Your task to perform on an android device: turn on the 24-hour format for clock Image 0: 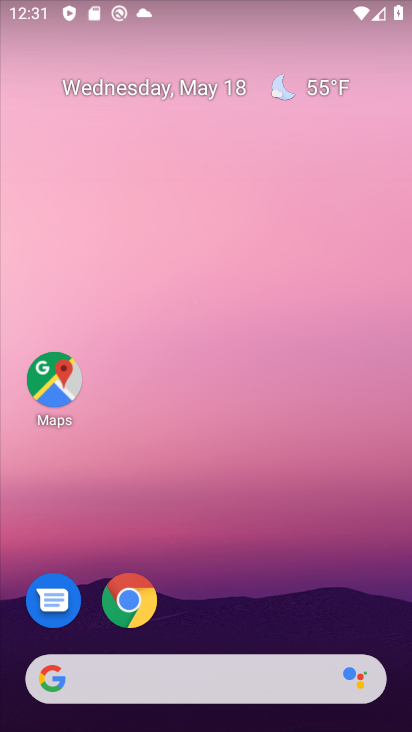
Step 0: drag from (218, 663) to (228, 165)
Your task to perform on an android device: turn on the 24-hour format for clock Image 1: 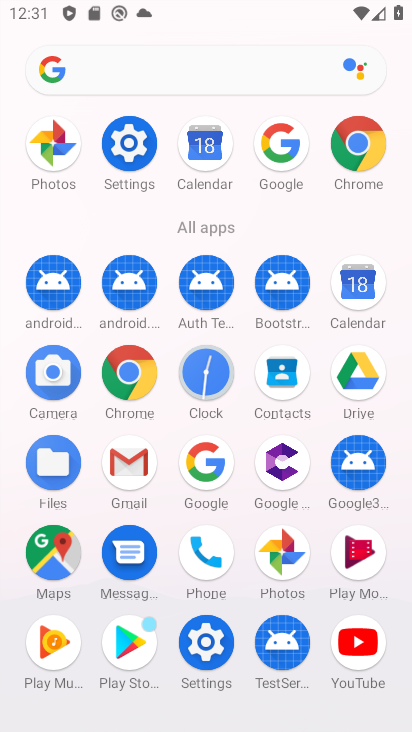
Step 1: click (133, 138)
Your task to perform on an android device: turn on the 24-hour format for clock Image 2: 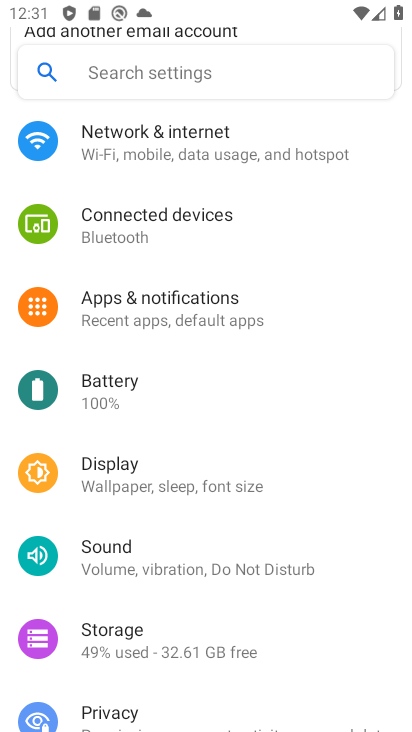
Step 2: drag from (116, 572) to (136, 0)
Your task to perform on an android device: turn on the 24-hour format for clock Image 3: 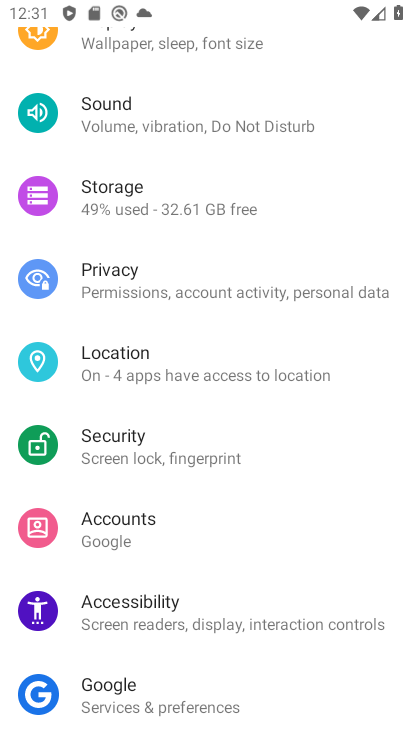
Step 3: drag from (128, 594) to (114, 41)
Your task to perform on an android device: turn on the 24-hour format for clock Image 4: 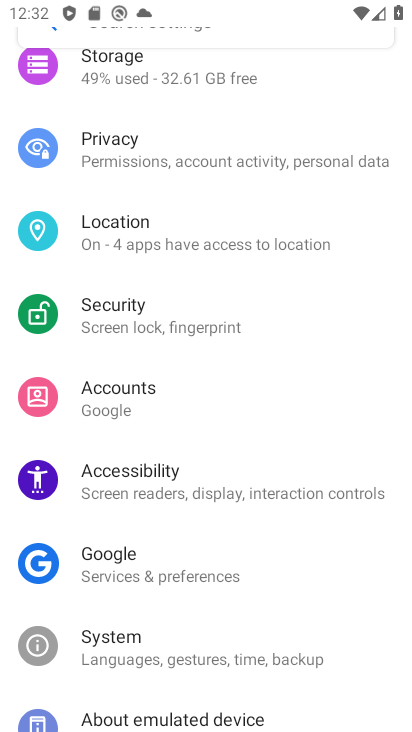
Step 4: click (131, 664)
Your task to perform on an android device: turn on the 24-hour format for clock Image 5: 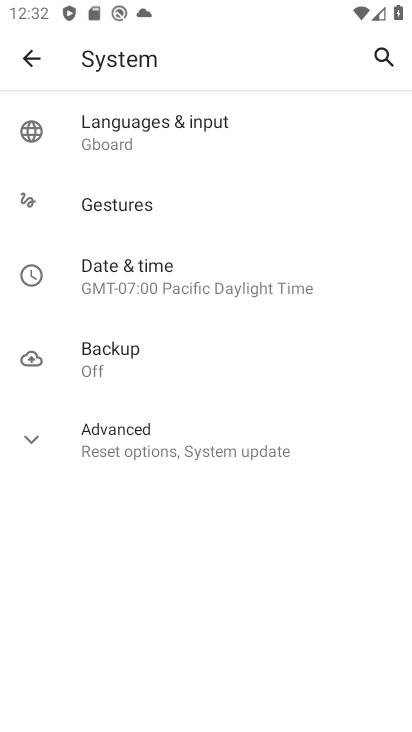
Step 5: drag from (143, 673) to (160, 458)
Your task to perform on an android device: turn on the 24-hour format for clock Image 6: 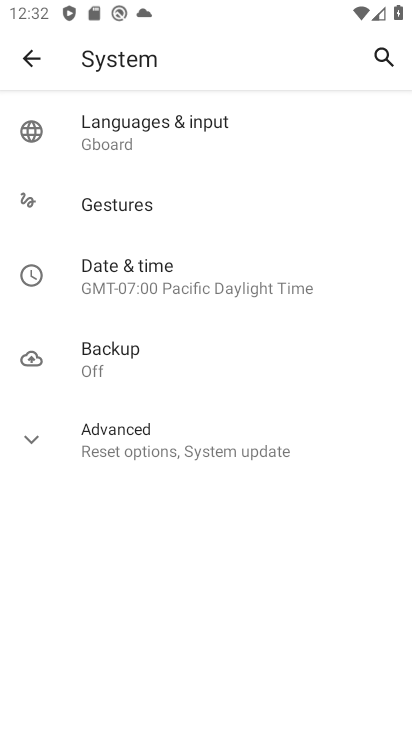
Step 6: click (159, 284)
Your task to perform on an android device: turn on the 24-hour format for clock Image 7: 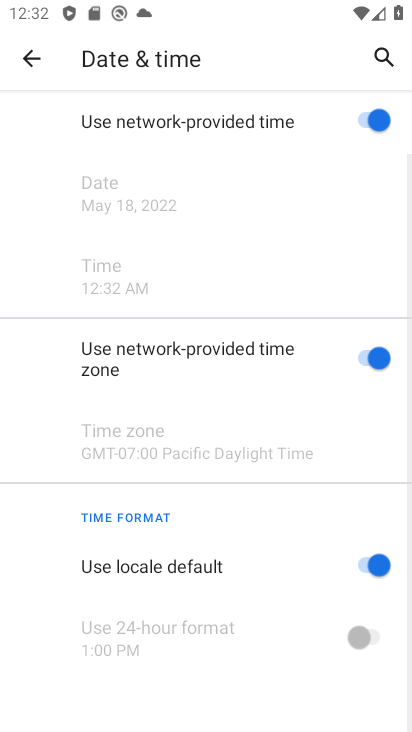
Step 7: drag from (174, 632) to (219, 18)
Your task to perform on an android device: turn on the 24-hour format for clock Image 8: 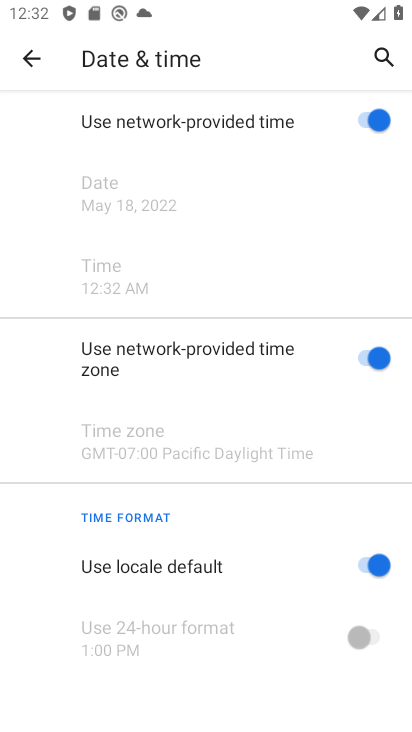
Step 8: click (357, 569)
Your task to perform on an android device: turn on the 24-hour format for clock Image 9: 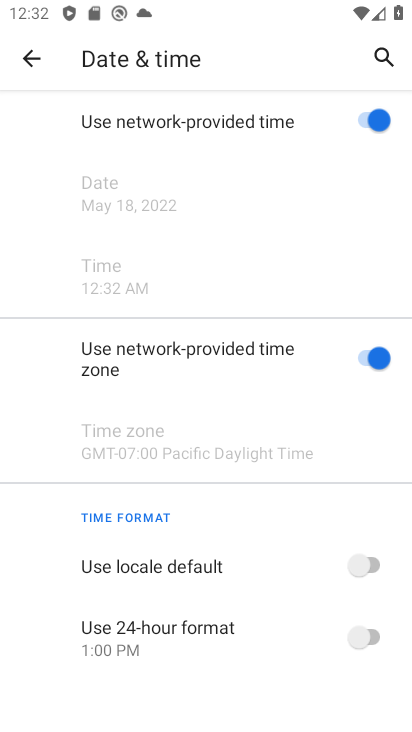
Step 9: click (363, 639)
Your task to perform on an android device: turn on the 24-hour format for clock Image 10: 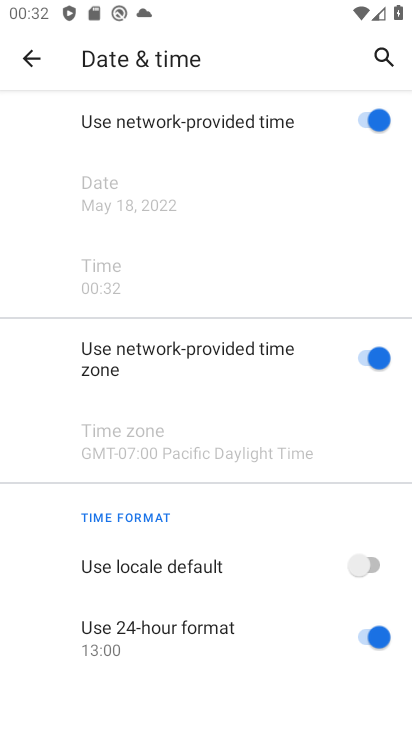
Step 10: task complete